Your task to perform on an android device: Empty the shopping cart on bestbuy. Image 0: 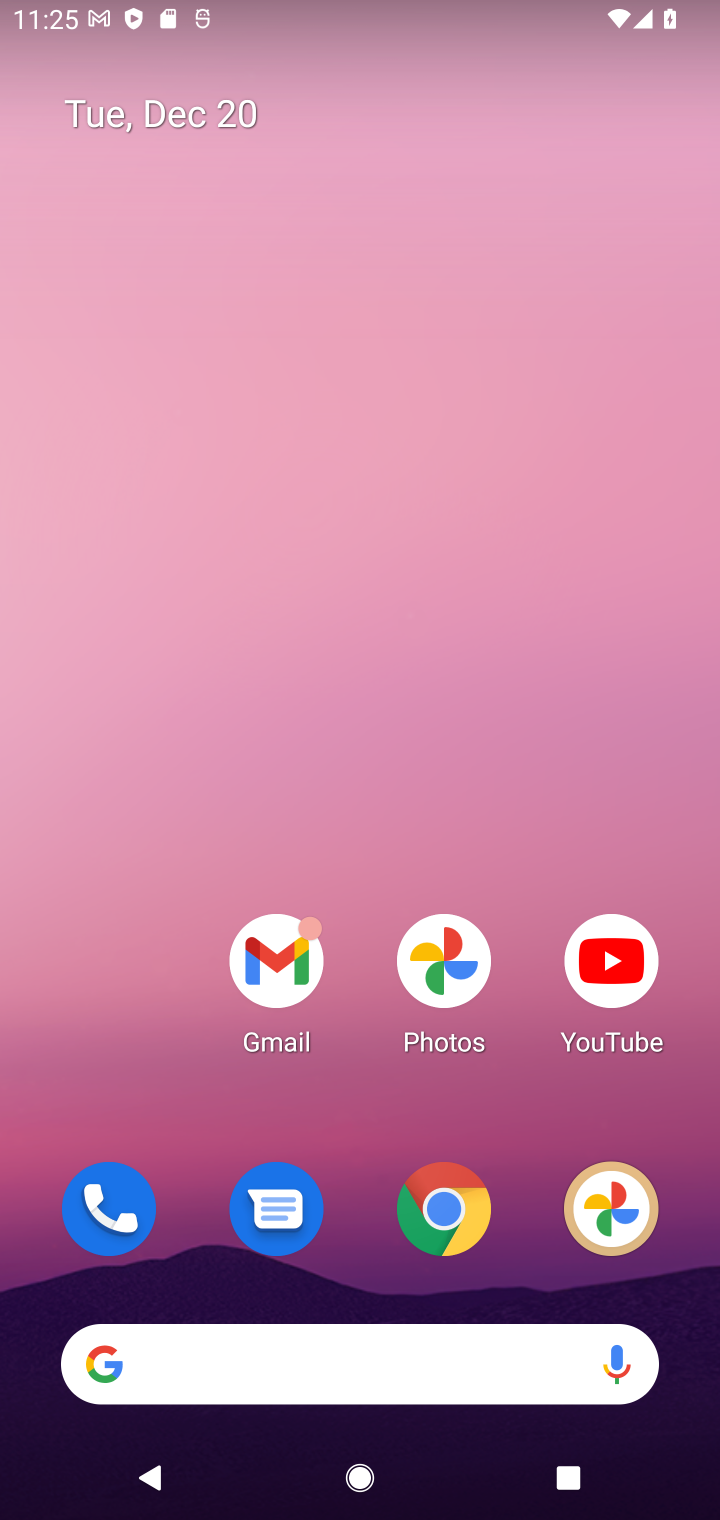
Step 0: click (433, 1226)
Your task to perform on an android device: Empty the shopping cart on bestbuy. Image 1: 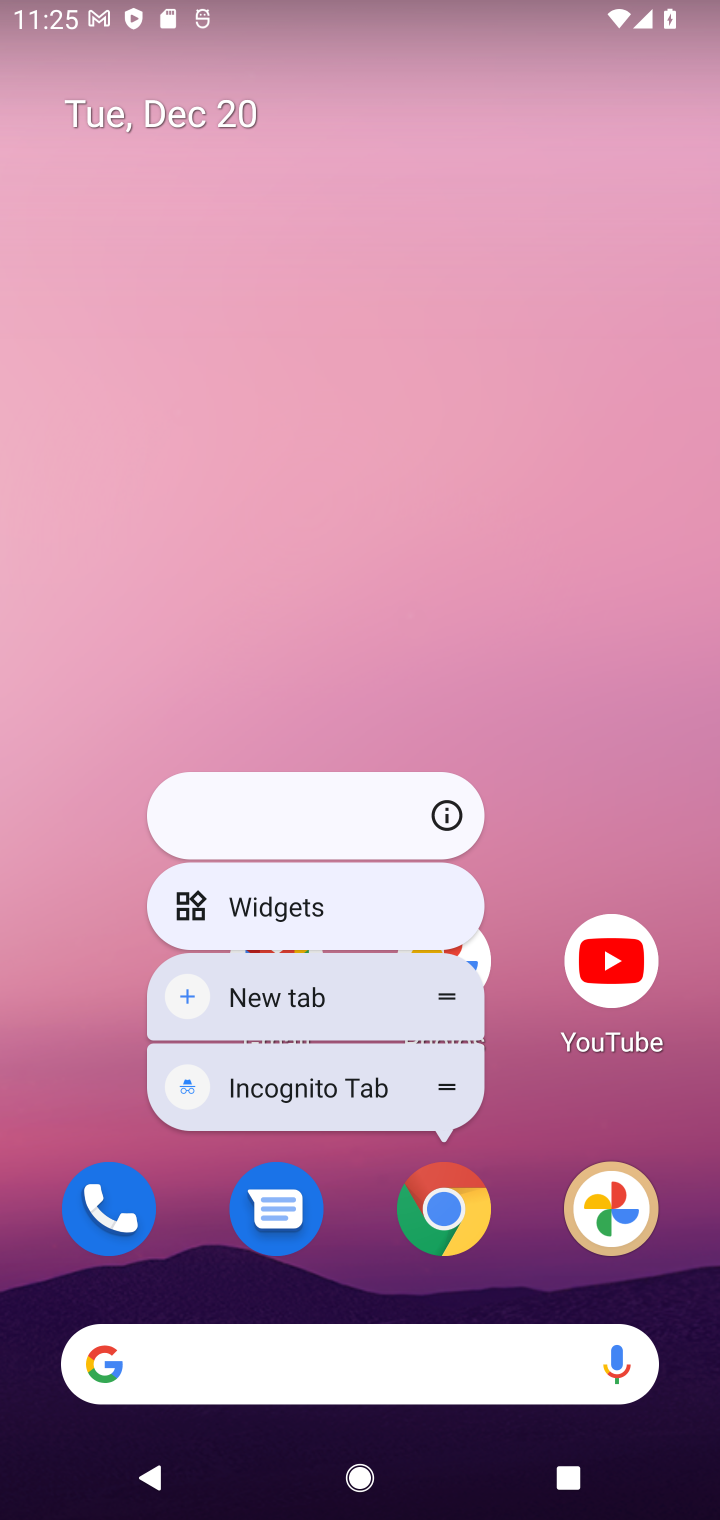
Step 1: click (451, 1209)
Your task to perform on an android device: Empty the shopping cart on bestbuy. Image 2: 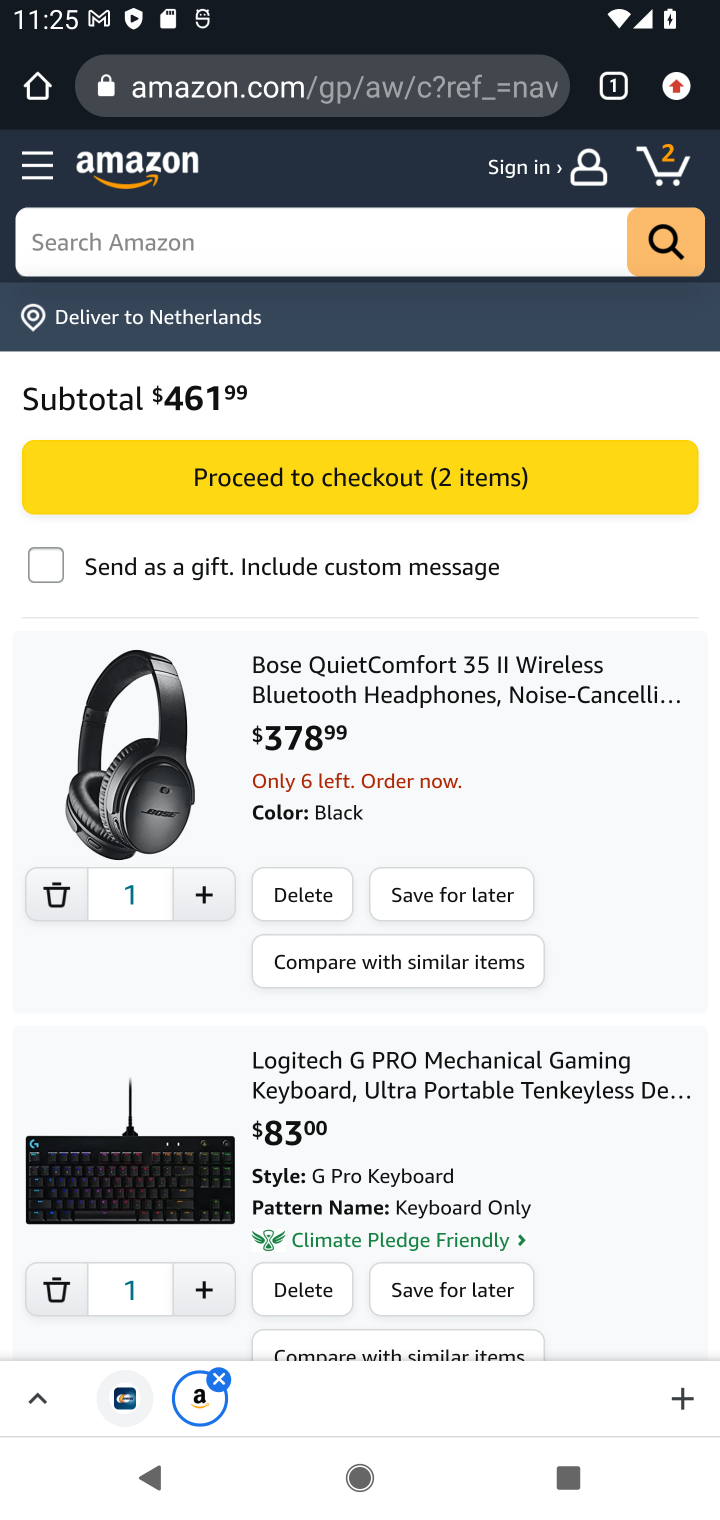
Step 2: click (264, 101)
Your task to perform on an android device: Empty the shopping cart on bestbuy. Image 3: 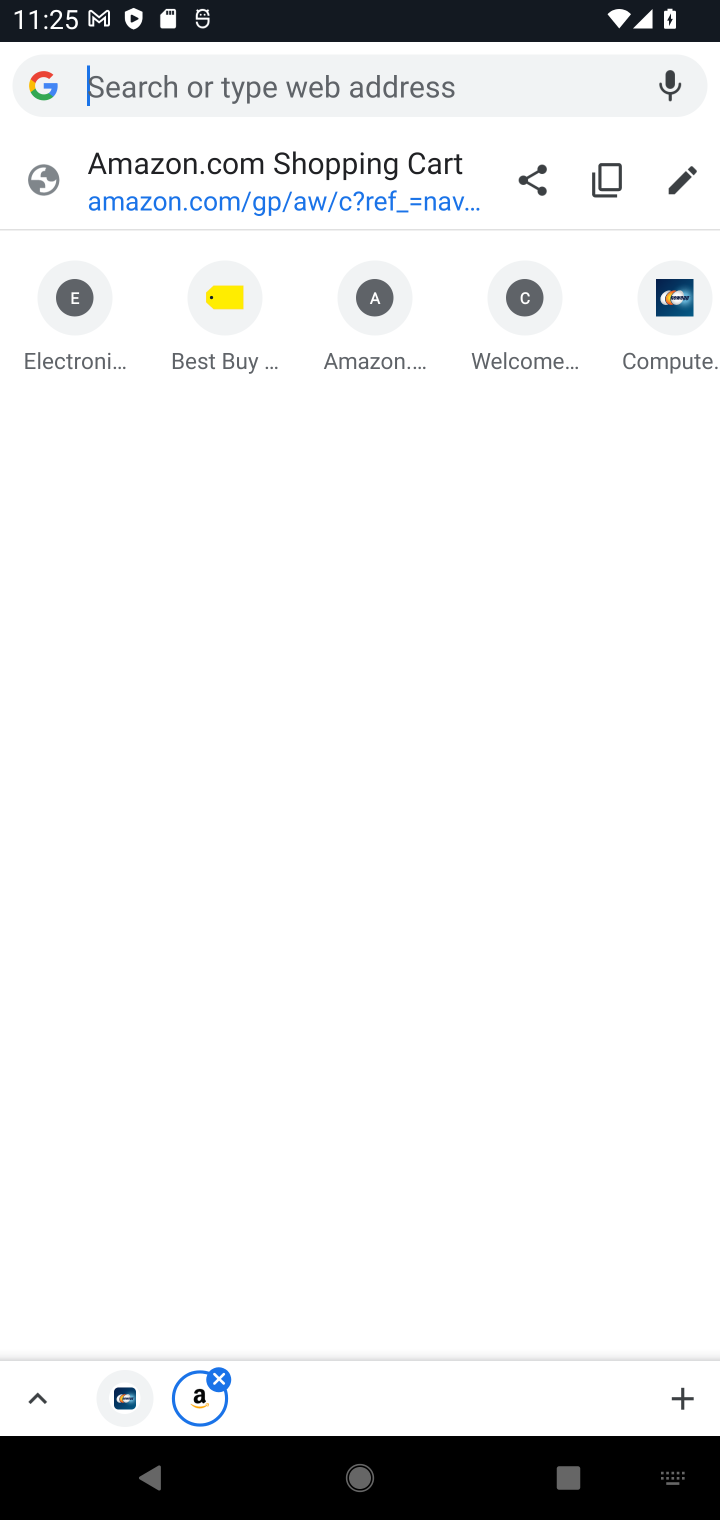
Step 3: click (224, 308)
Your task to perform on an android device: Empty the shopping cart on bestbuy. Image 4: 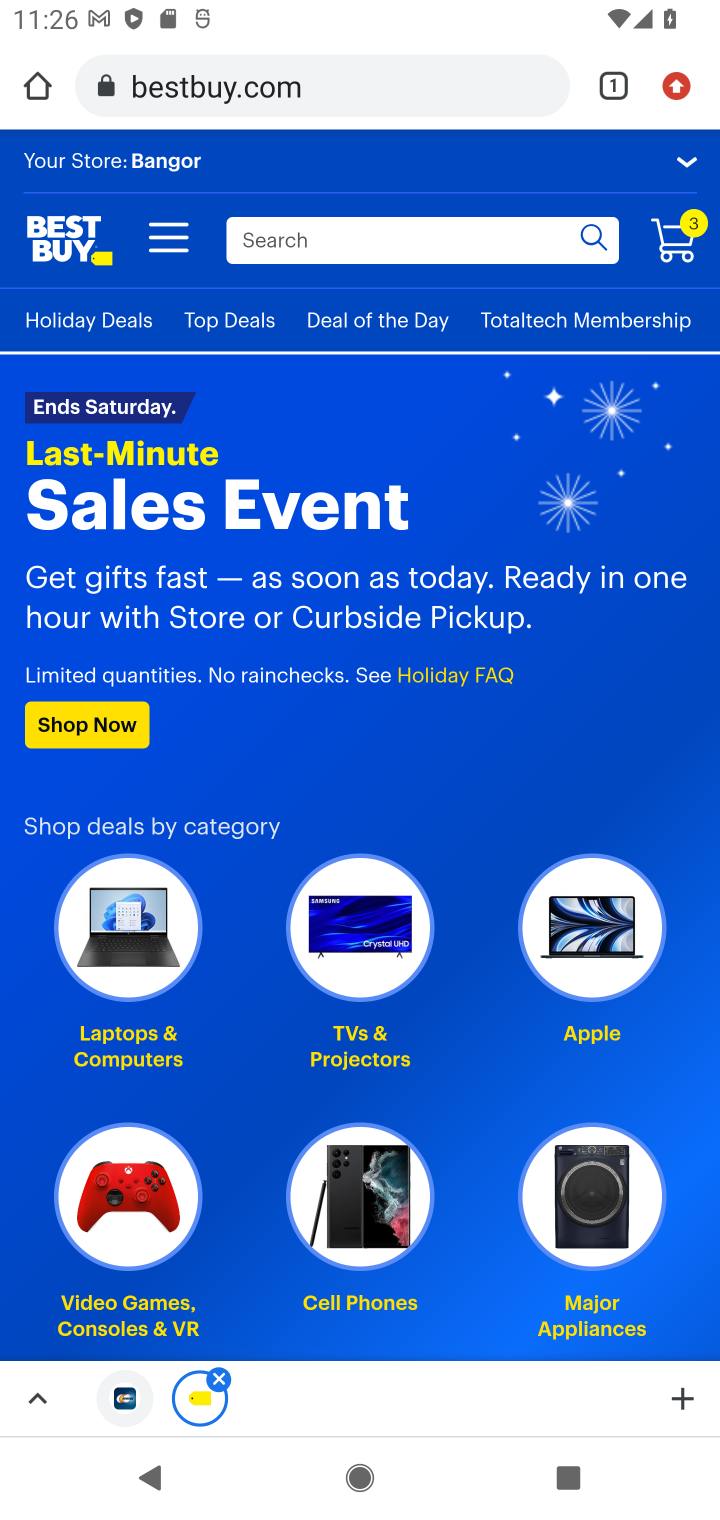
Step 4: click (679, 246)
Your task to perform on an android device: Empty the shopping cart on bestbuy. Image 5: 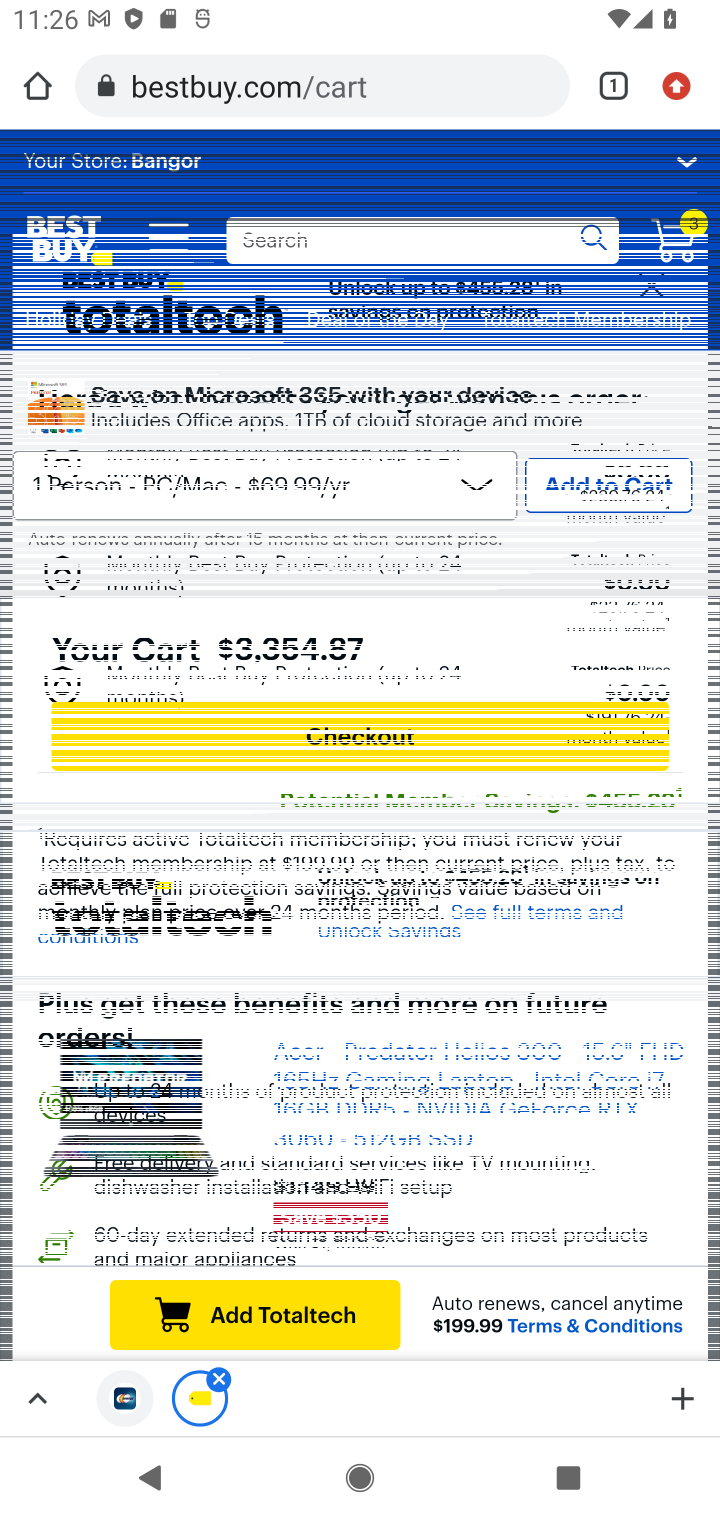
Step 5: click (653, 294)
Your task to perform on an android device: Empty the shopping cart on bestbuy. Image 6: 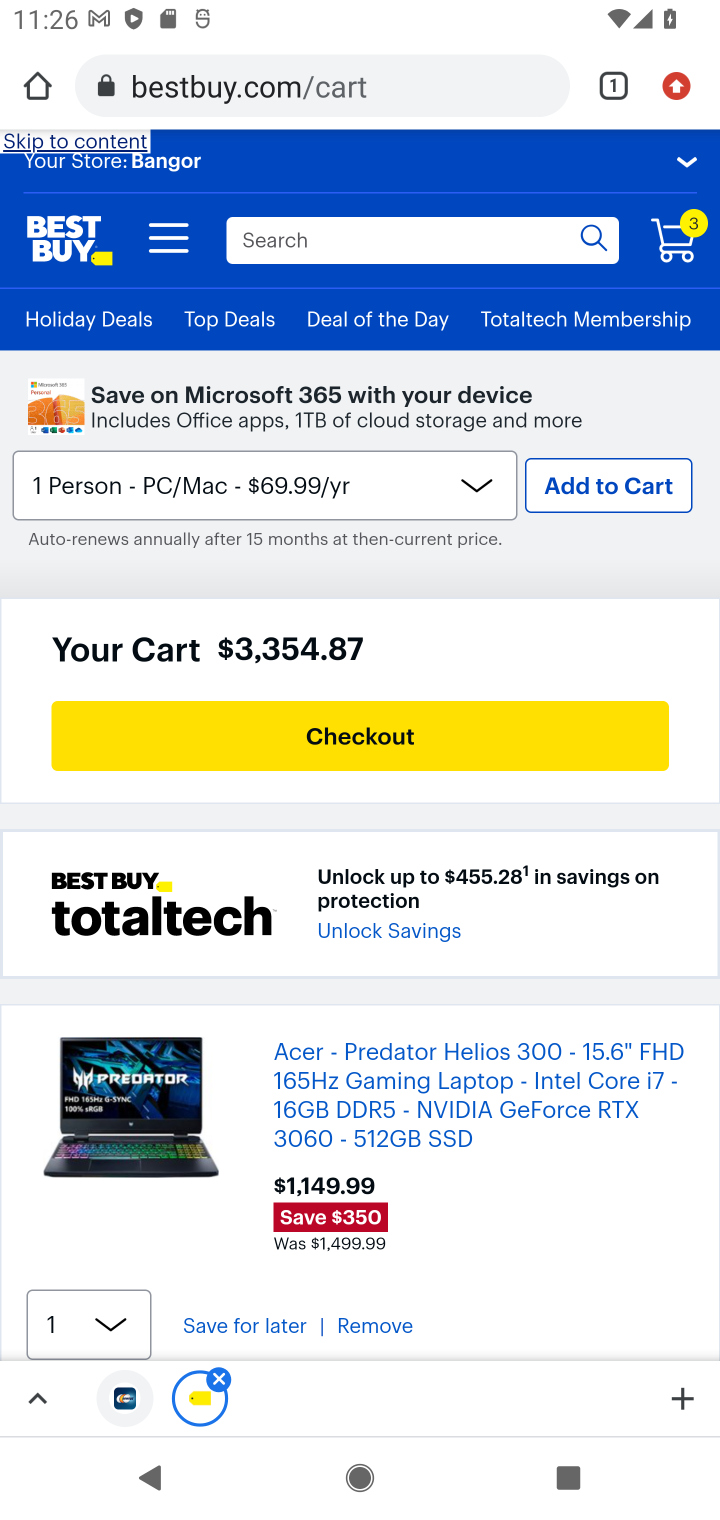
Step 6: click (383, 1330)
Your task to perform on an android device: Empty the shopping cart on bestbuy. Image 7: 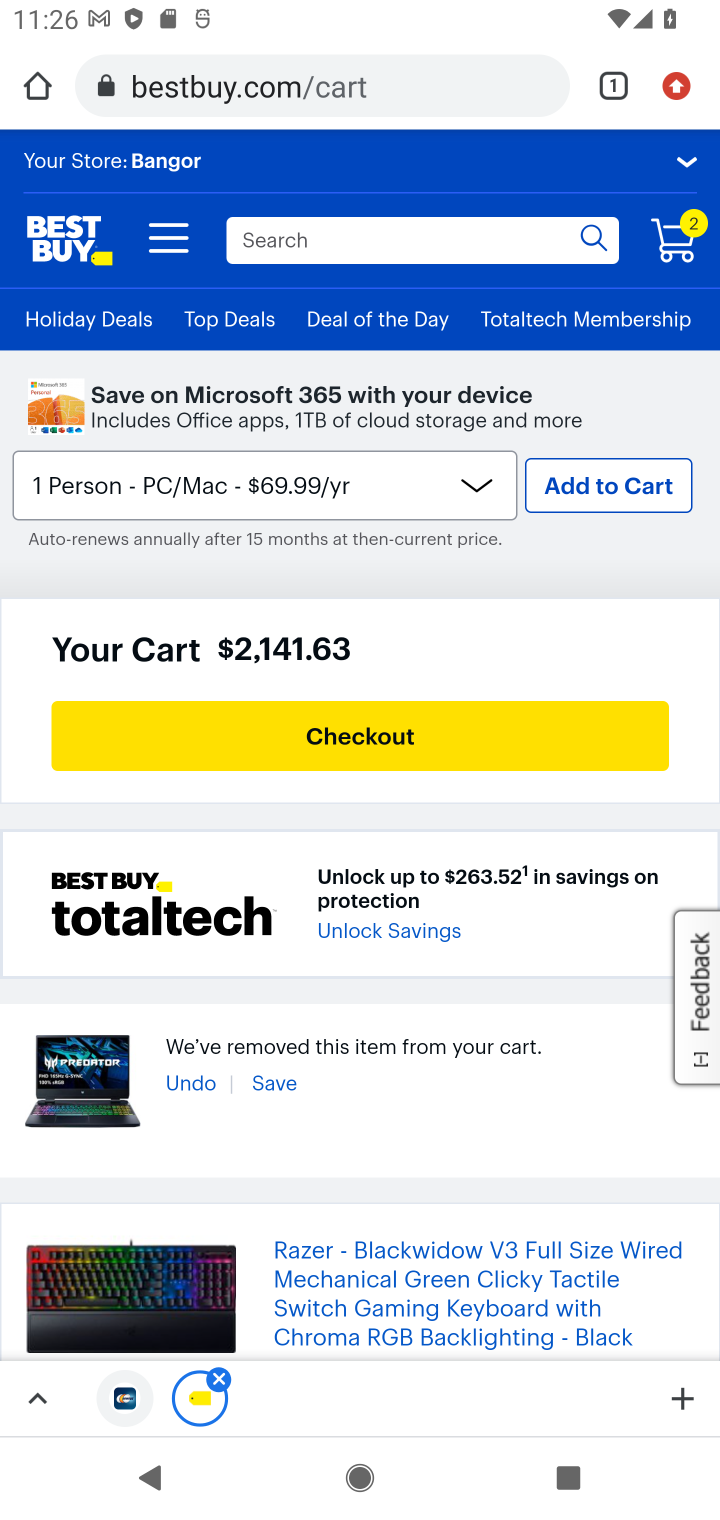
Step 7: drag from (368, 1262) to (368, 779)
Your task to perform on an android device: Empty the shopping cart on bestbuy. Image 8: 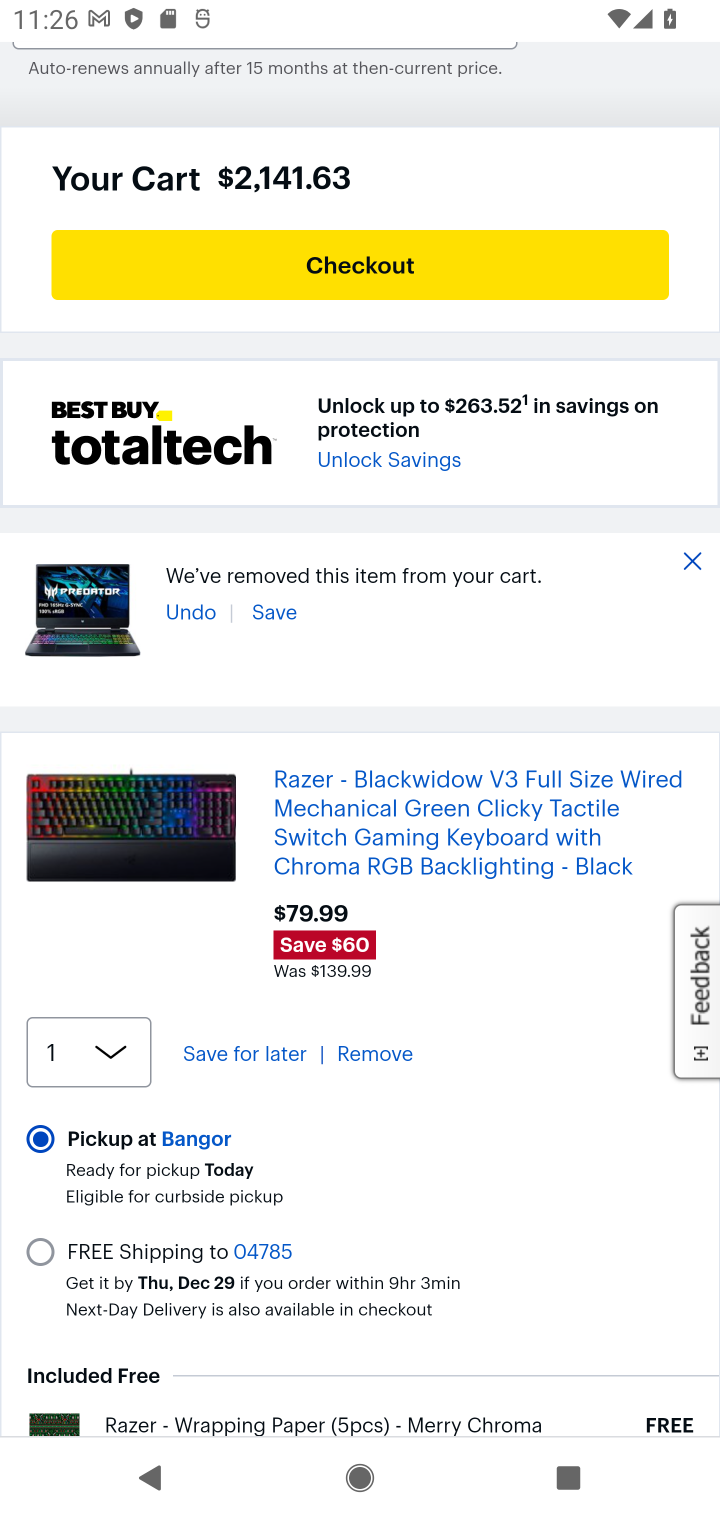
Step 8: click (352, 1052)
Your task to perform on an android device: Empty the shopping cart on bestbuy. Image 9: 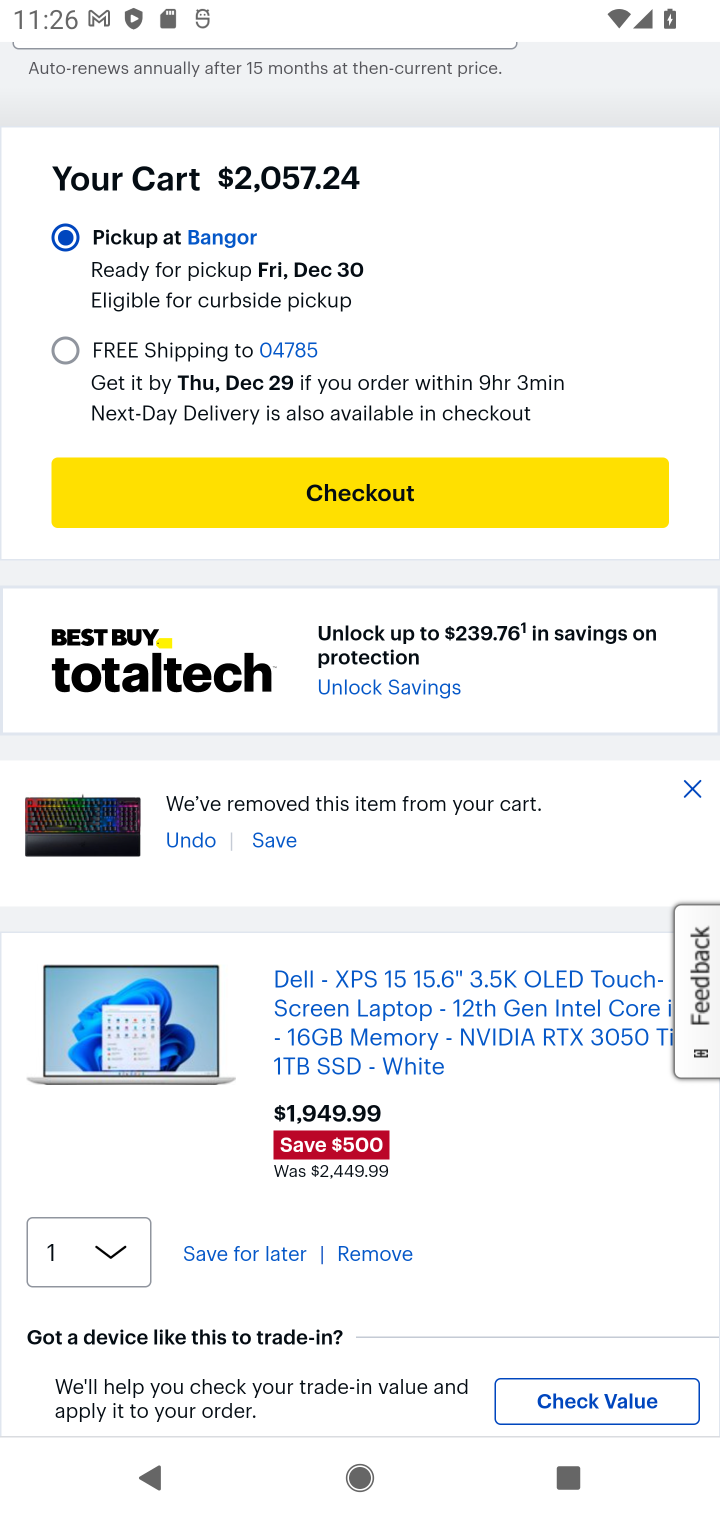
Step 9: click (364, 1257)
Your task to perform on an android device: Empty the shopping cart on bestbuy. Image 10: 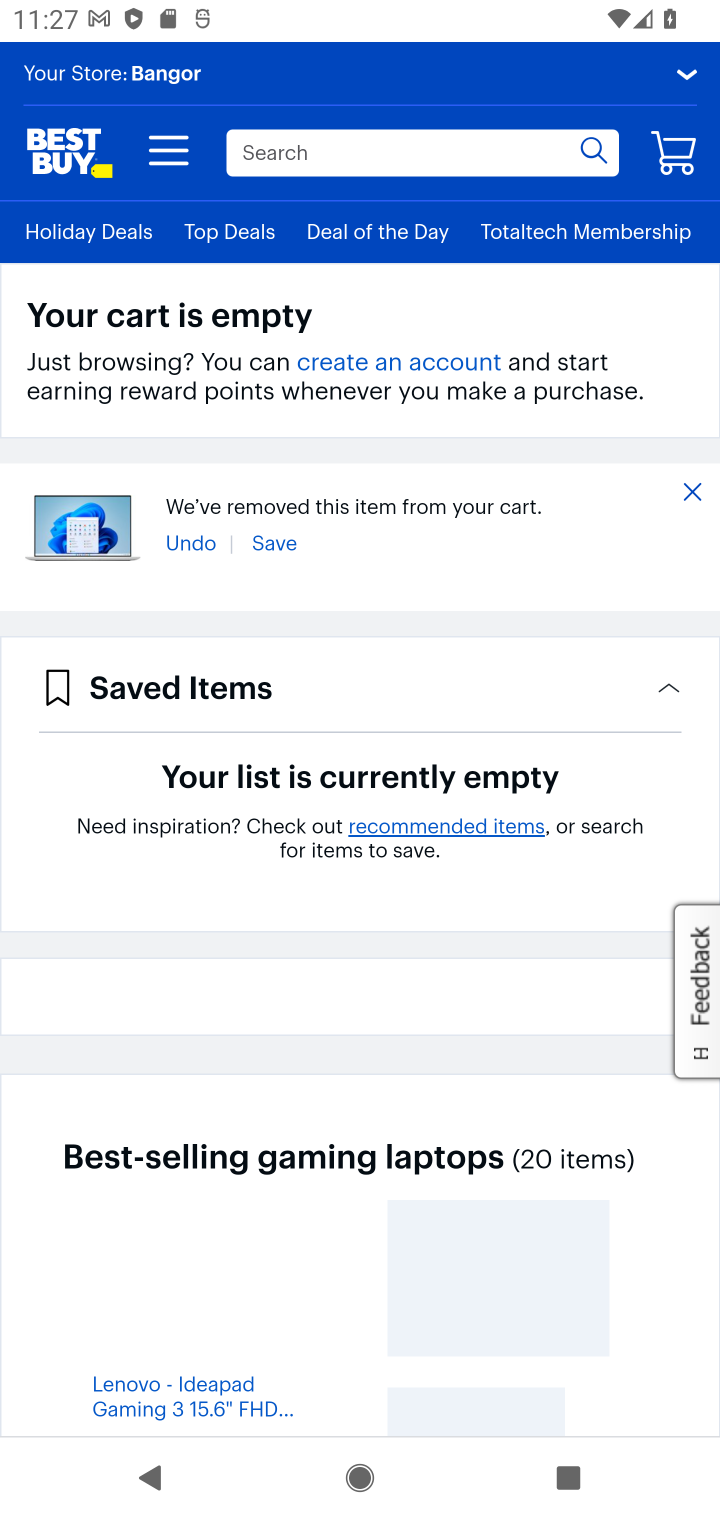
Step 10: task complete